Your task to perform on an android device: Clear the cart on amazon. Search for "rayovac triple a" on amazon, select the first entry, and add it to the cart. Image 0: 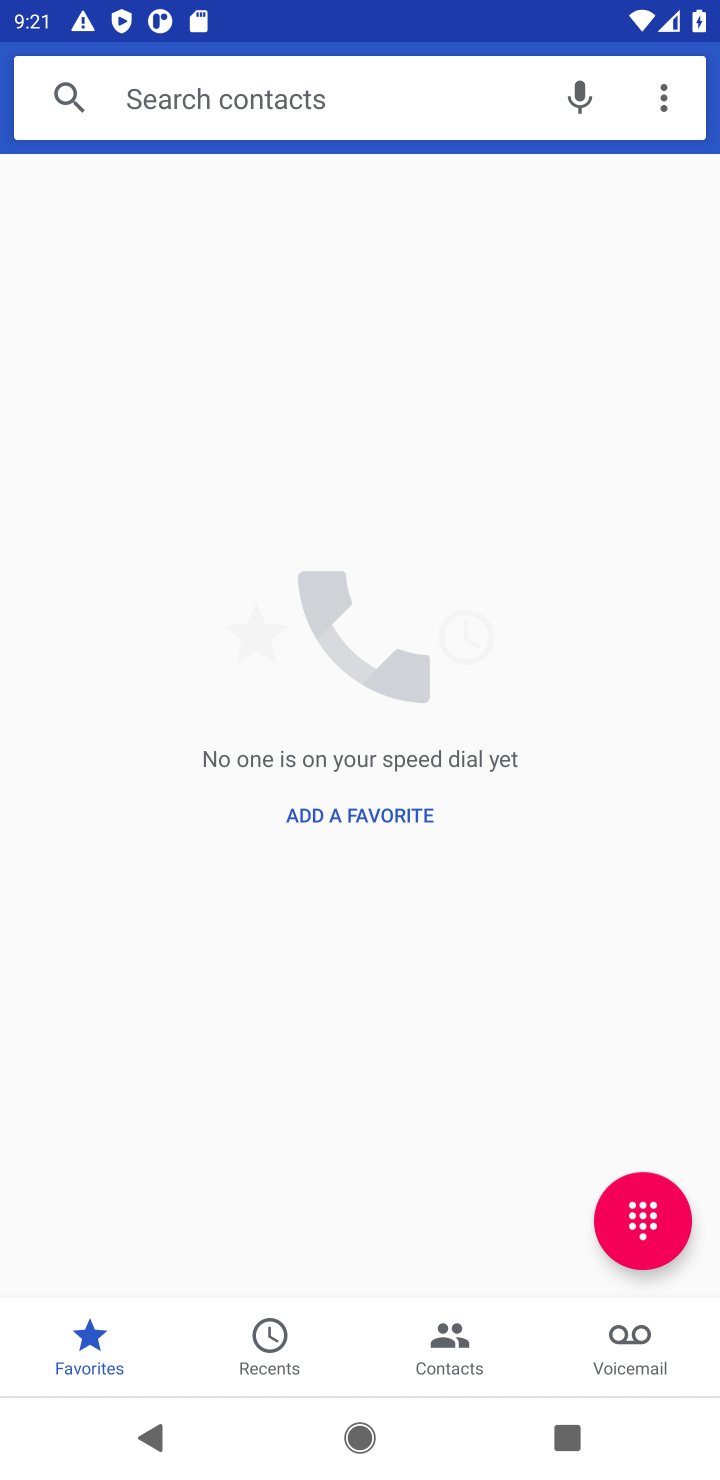
Step 0: press home button
Your task to perform on an android device: Clear the cart on amazon. Search for "rayovac triple a" on amazon, select the first entry, and add it to the cart. Image 1: 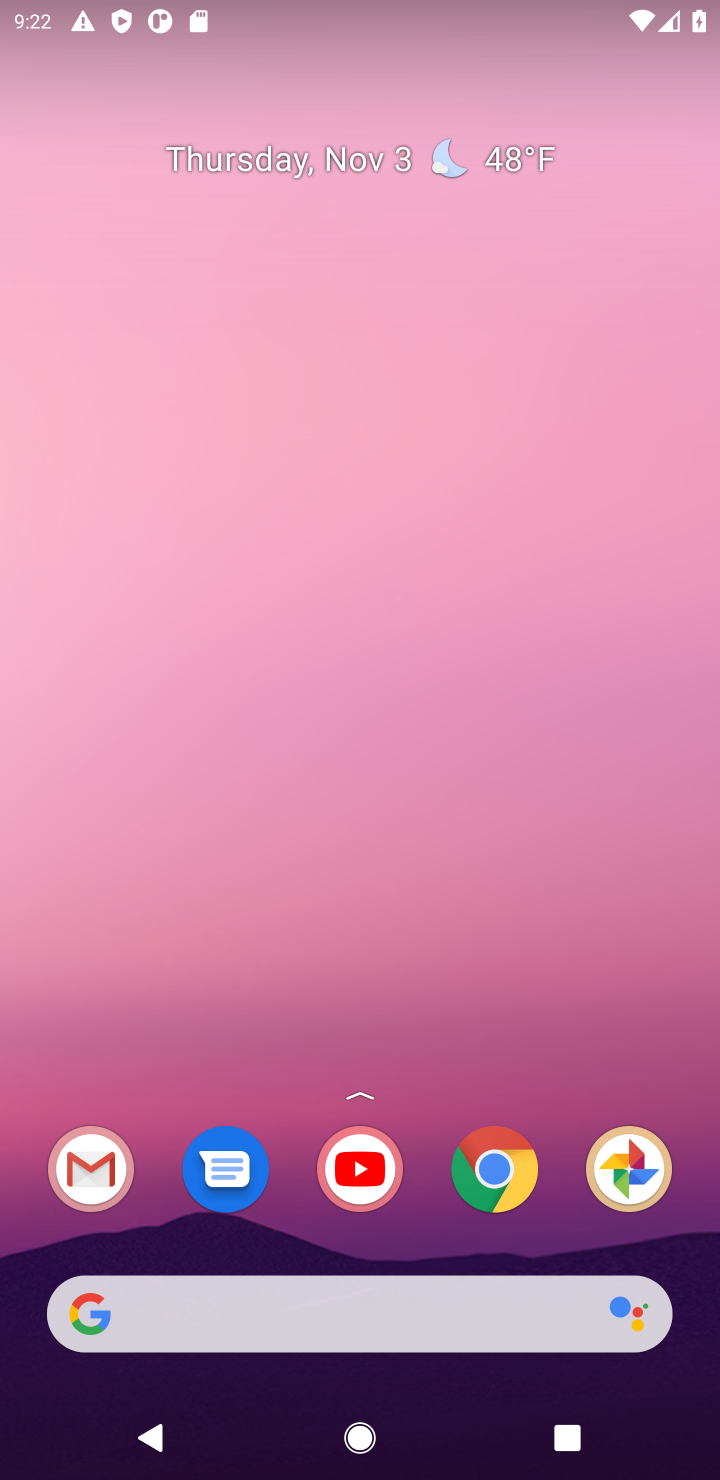
Step 1: drag from (441, 1075) to (470, 297)
Your task to perform on an android device: Clear the cart on amazon. Search for "rayovac triple a" on amazon, select the first entry, and add it to the cart. Image 2: 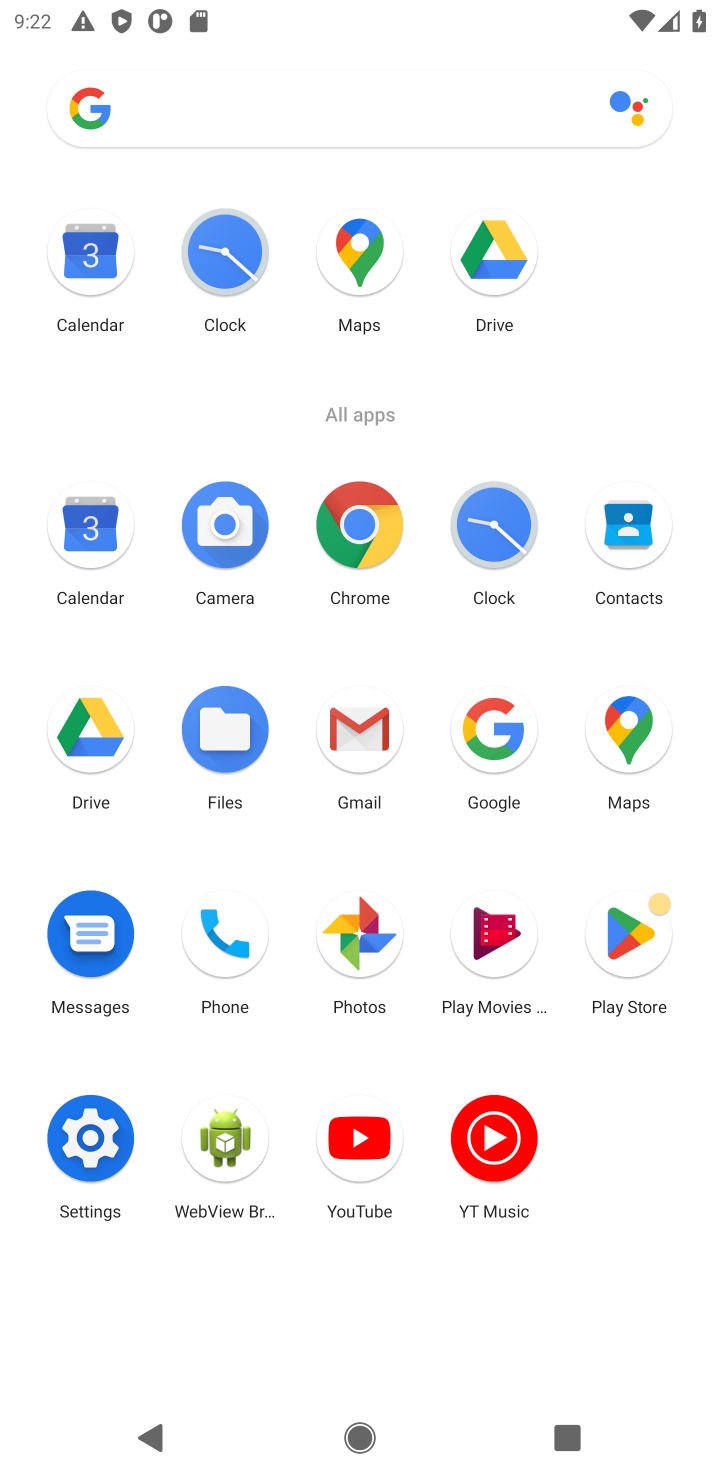
Step 2: click (354, 535)
Your task to perform on an android device: Clear the cart on amazon. Search for "rayovac triple a" on amazon, select the first entry, and add it to the cart. Image 3: 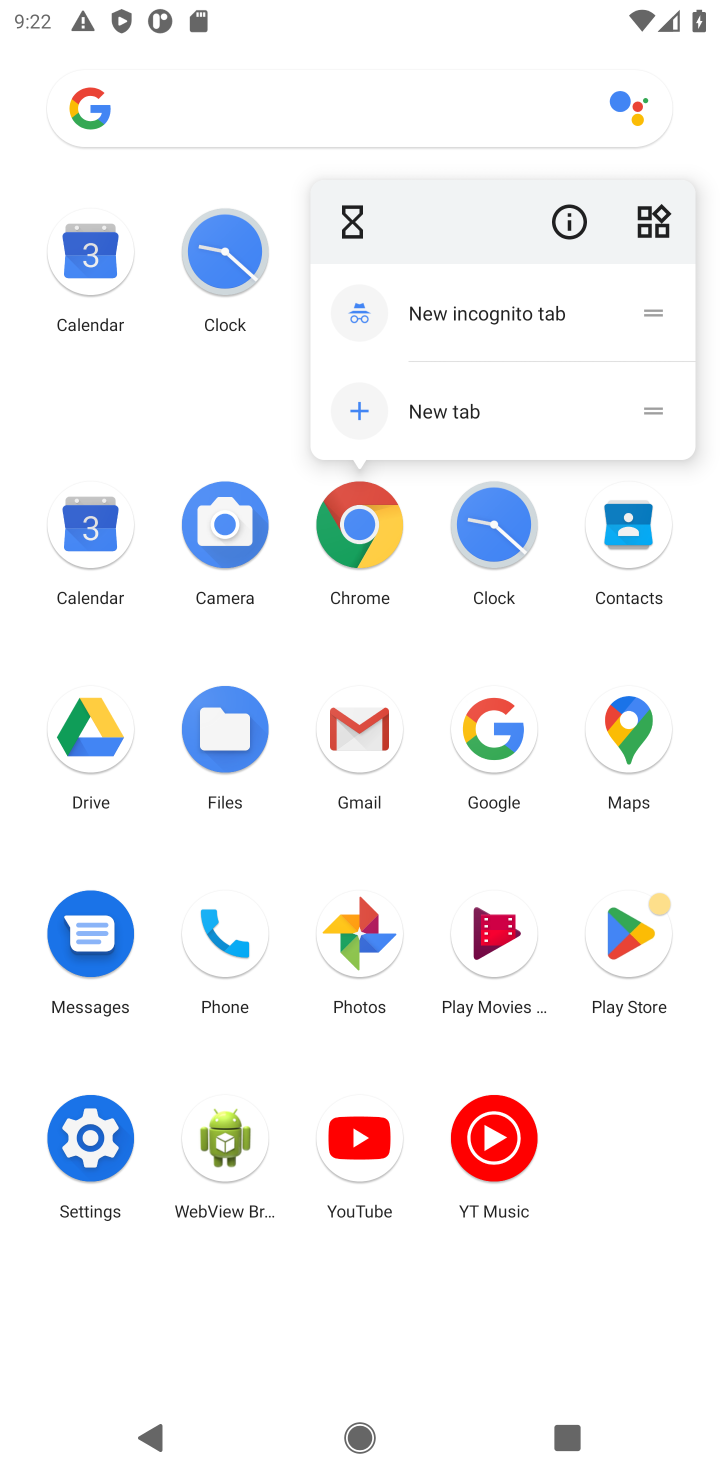
Step 3: click (364, 523)
Your task to perform on an android device: Clear the cart on amazon. Search for "rayovac triple a" on amazon, select the first entry, and add it to the cart. Image 4: 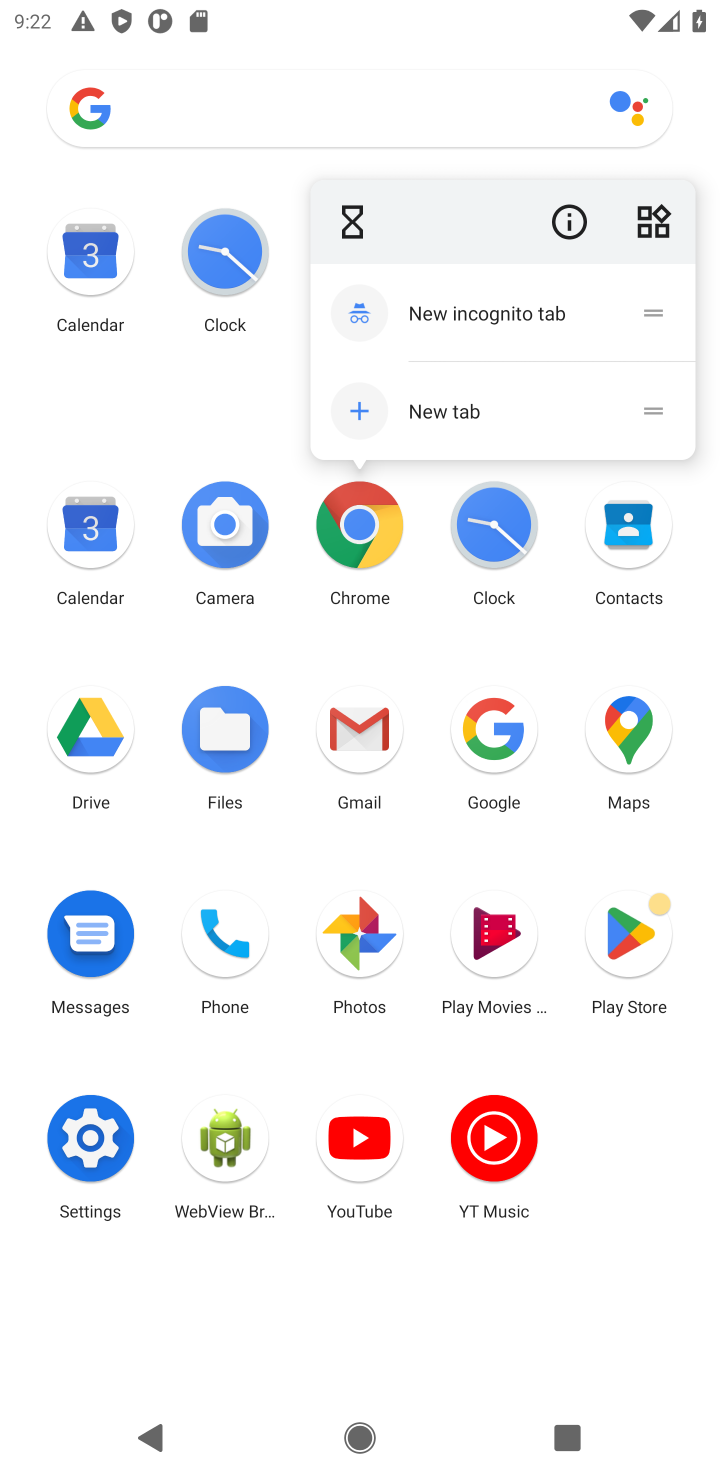
Step 4: click (356, 524)
Your task to perform on an android device: Clear the cart on amazon. Search for "rayovac triple a" on amazon, select the first entry, and add it to the cart. Image 5: 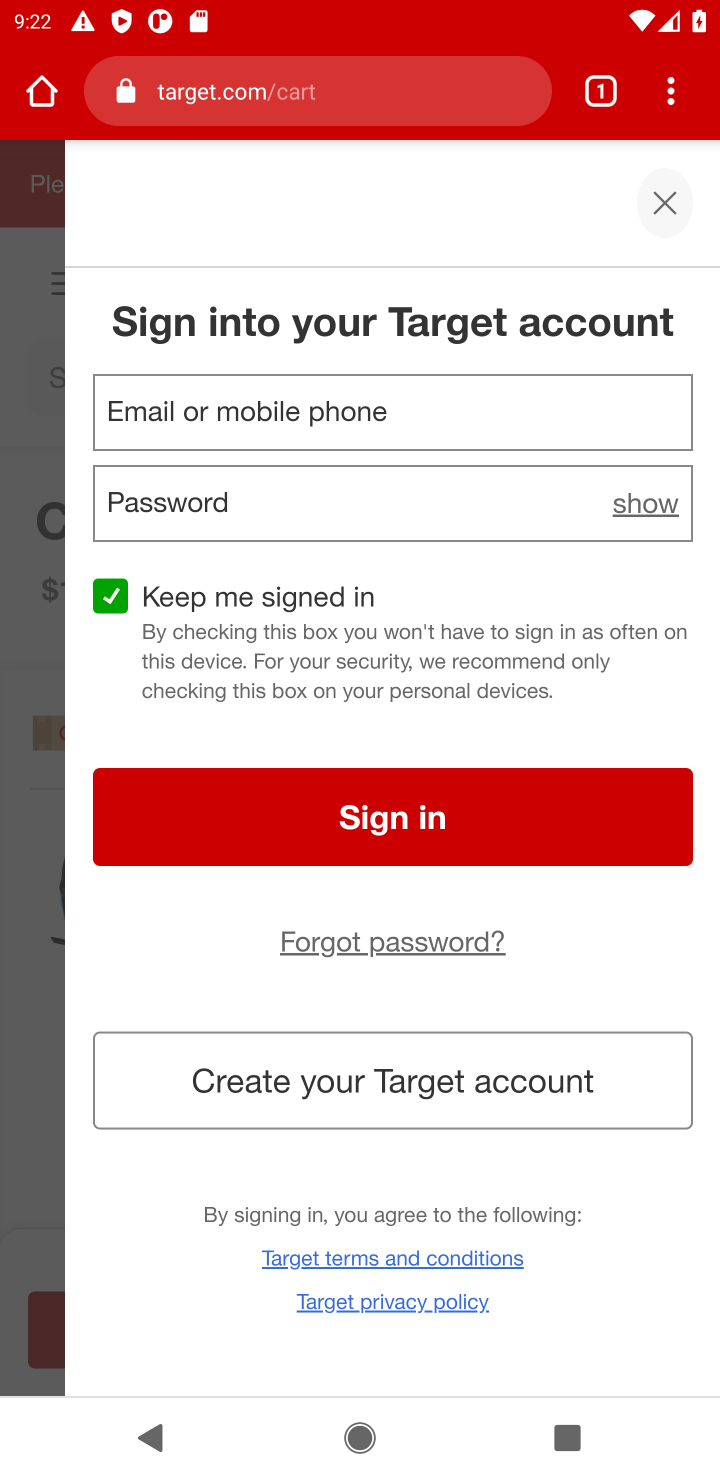
Step 5: click (465, 84)
Your task to perform on an android device: Clear the cart on amazon. Search for "rayovac triple a" on amazon, select the first entry, and add it to the cart. Image 6: 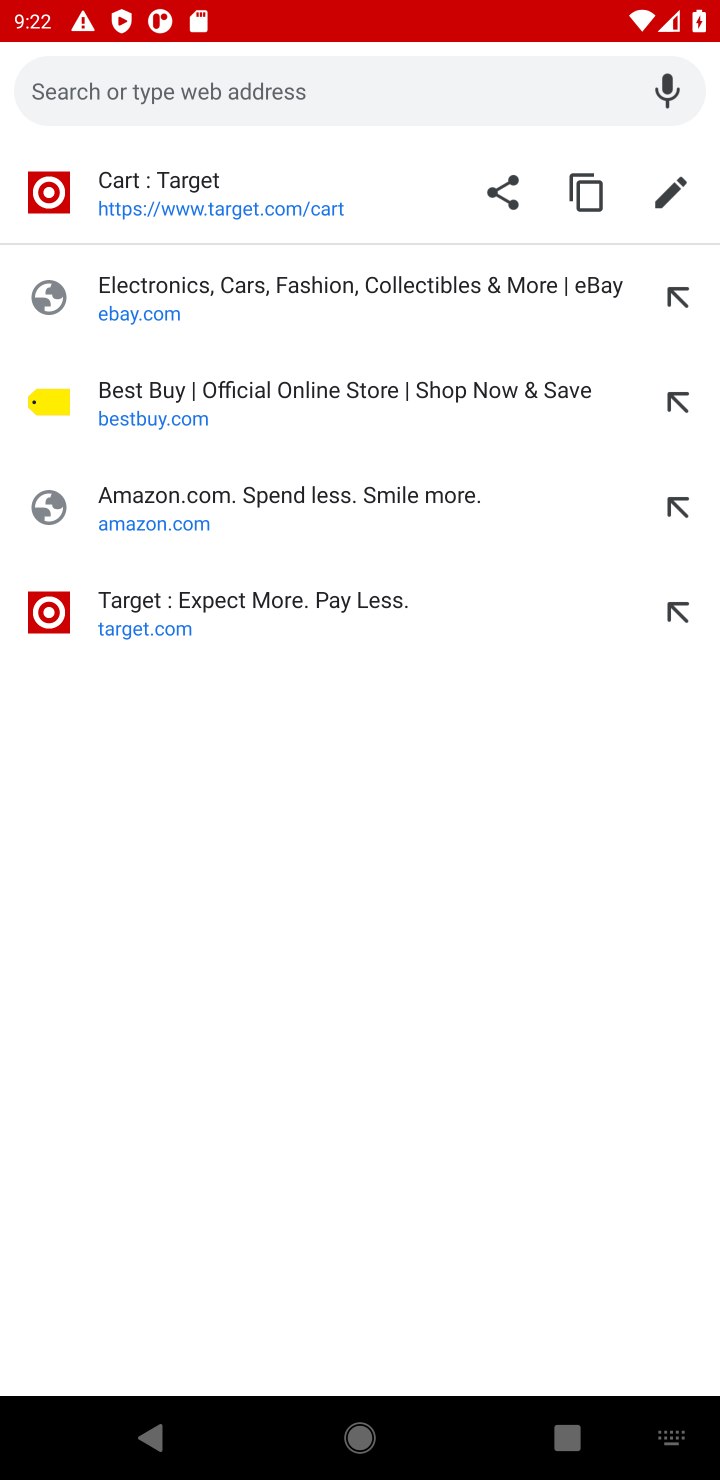
Step 6: type "amazon.com"
Your task to perform on an android device: Clear the cart on amazon. Search for "rayovac triple a" on amazon, select the first entry, and add it to the cart. Image 7: 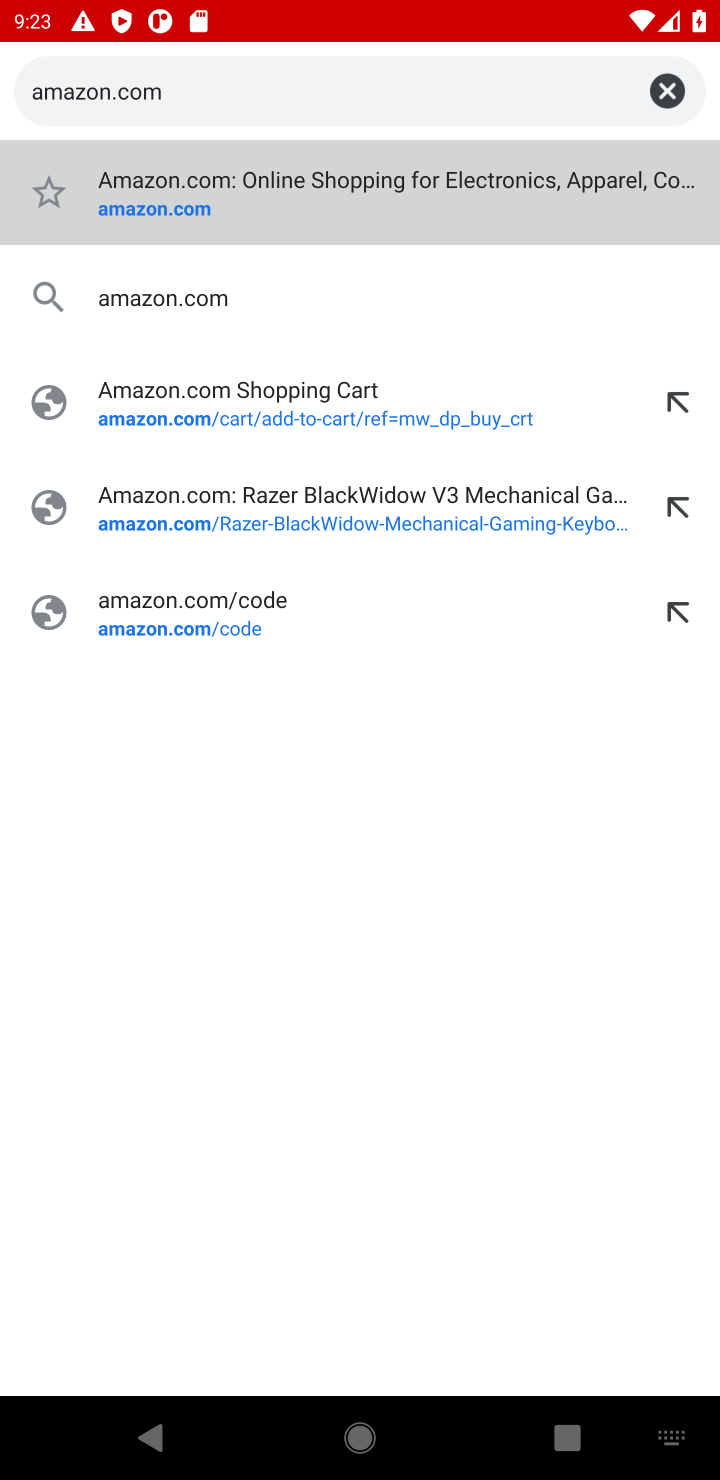
Step 7: press enter
Your task to perform on an android device: Clear the cart on amazon. Search for "rayovac triple a" on amazon, select the first entry, and add it to the cart. Image 8: 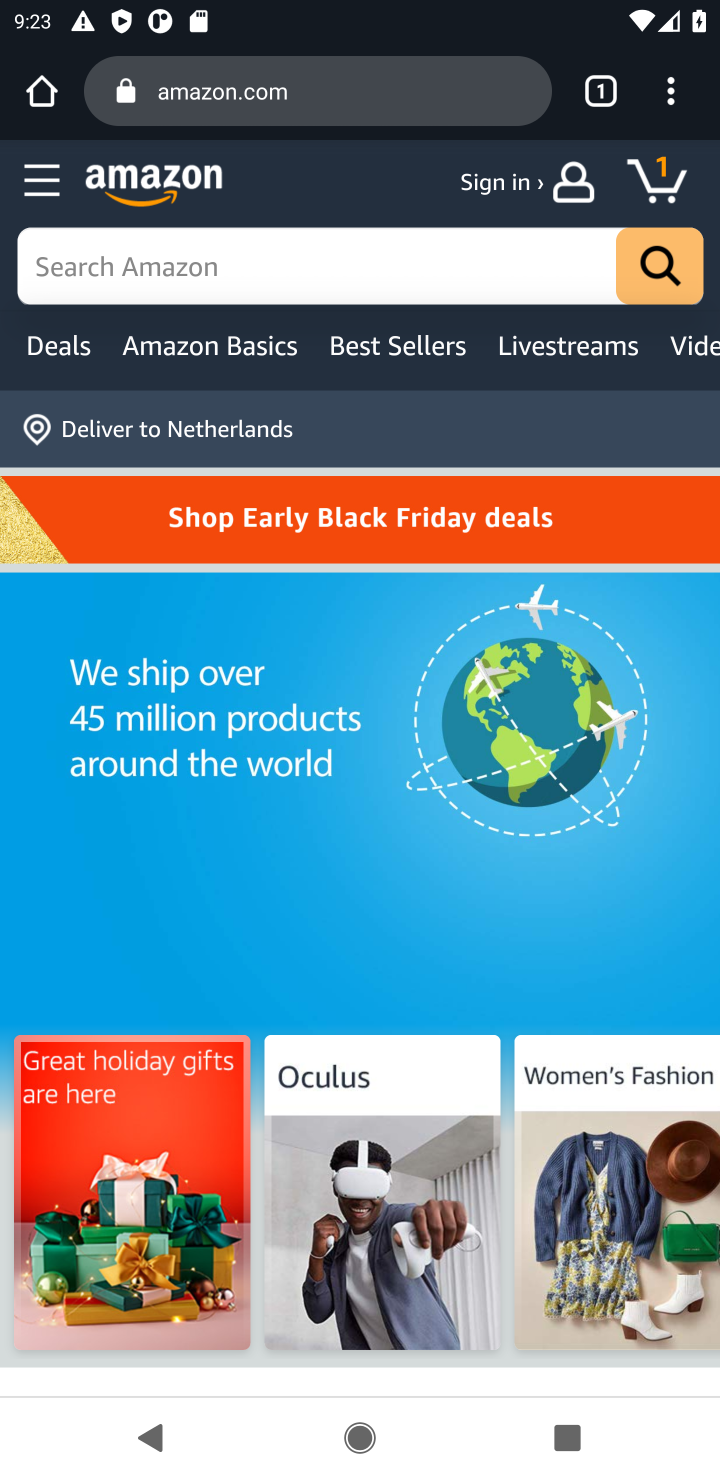
Step 8: click (693, 178)
Your task to perform on an android device: Clear the cart on amazon. Search for "rayovac triple a" on amazon, select the first entry, and add it to the cart. Image 9: 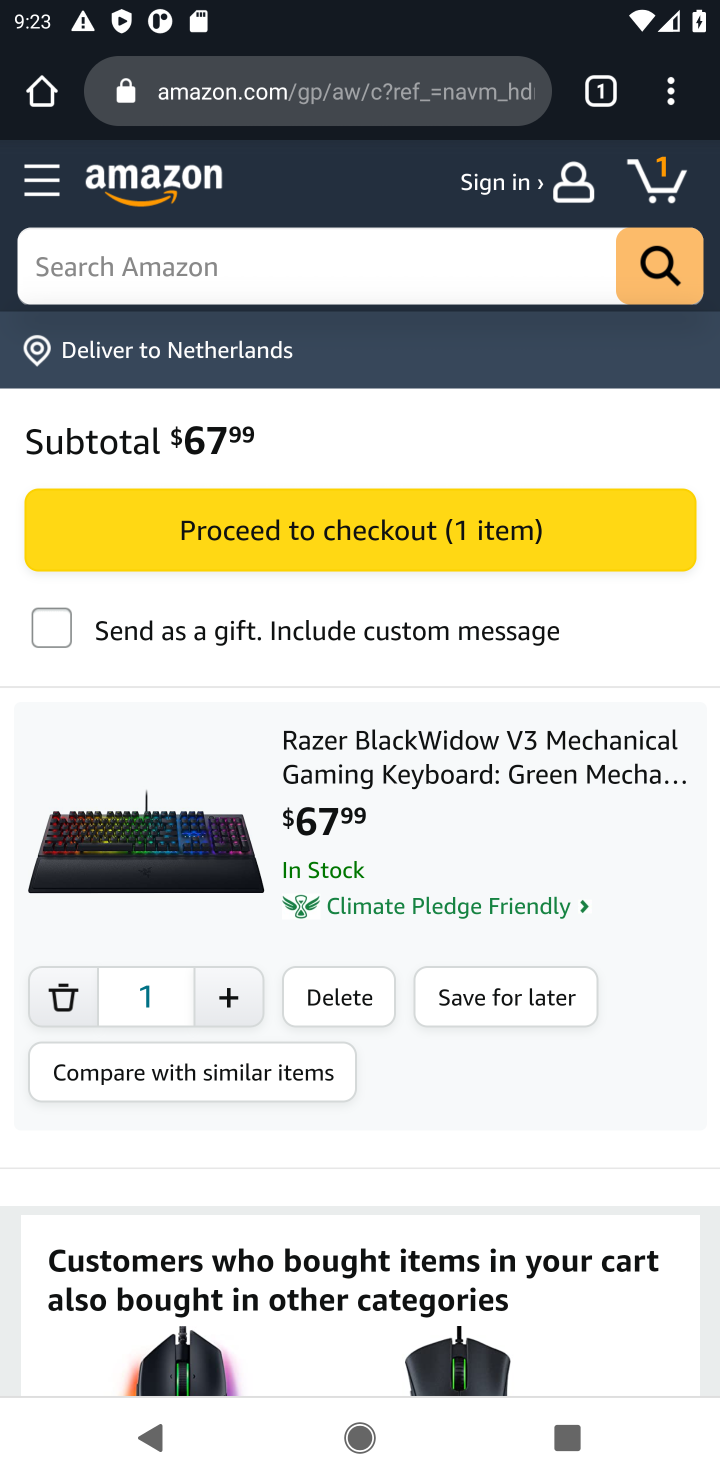
Step 9: click (72, 1002)
Your task to perform on an android device: Clear the cart on amazon. Search for "rayovac triple a" on amazon, select the first entry, and add it to the cart. Image 10: 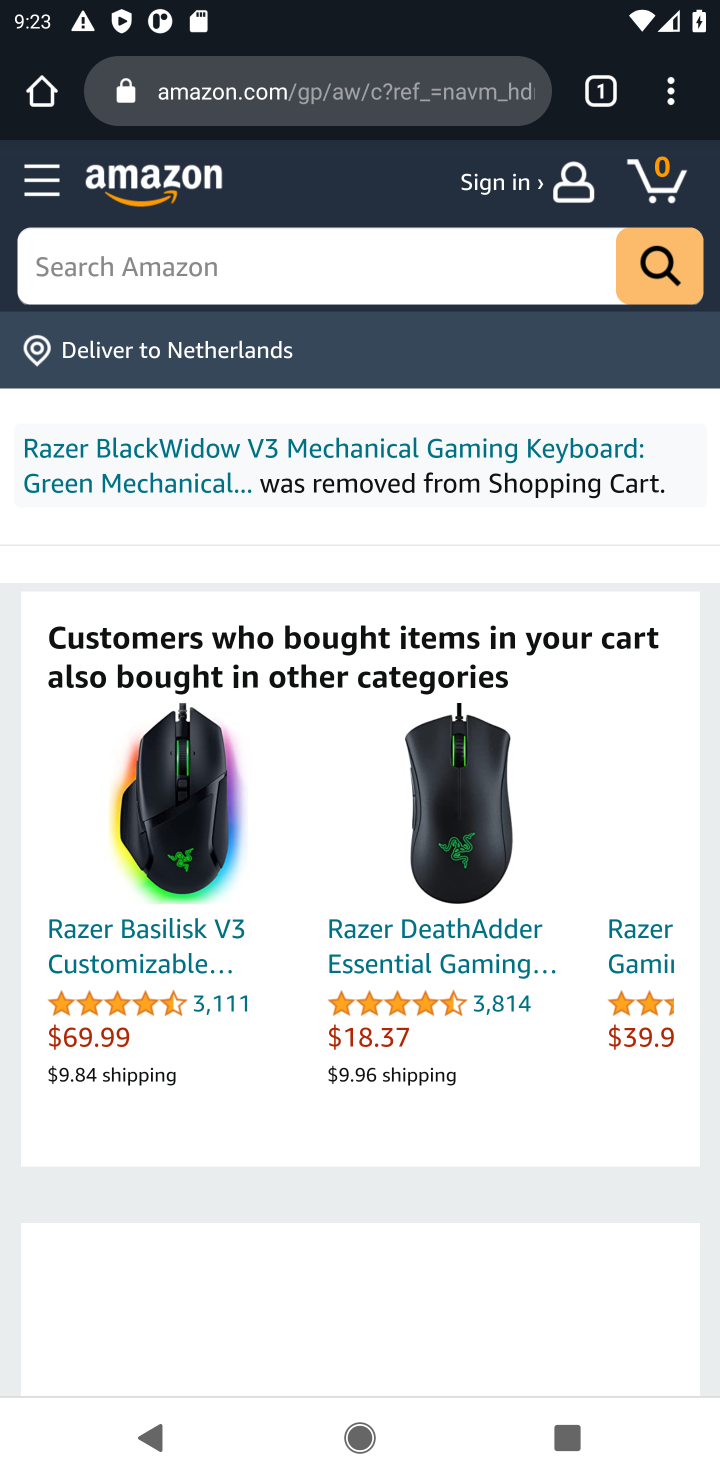
Step 10: click (402, 292)
Your task to perform on an android device: Clear the cart on amazon. Search for "rayovac triple a" on amazon, select the first entry, and add it to the cart. Image 11: 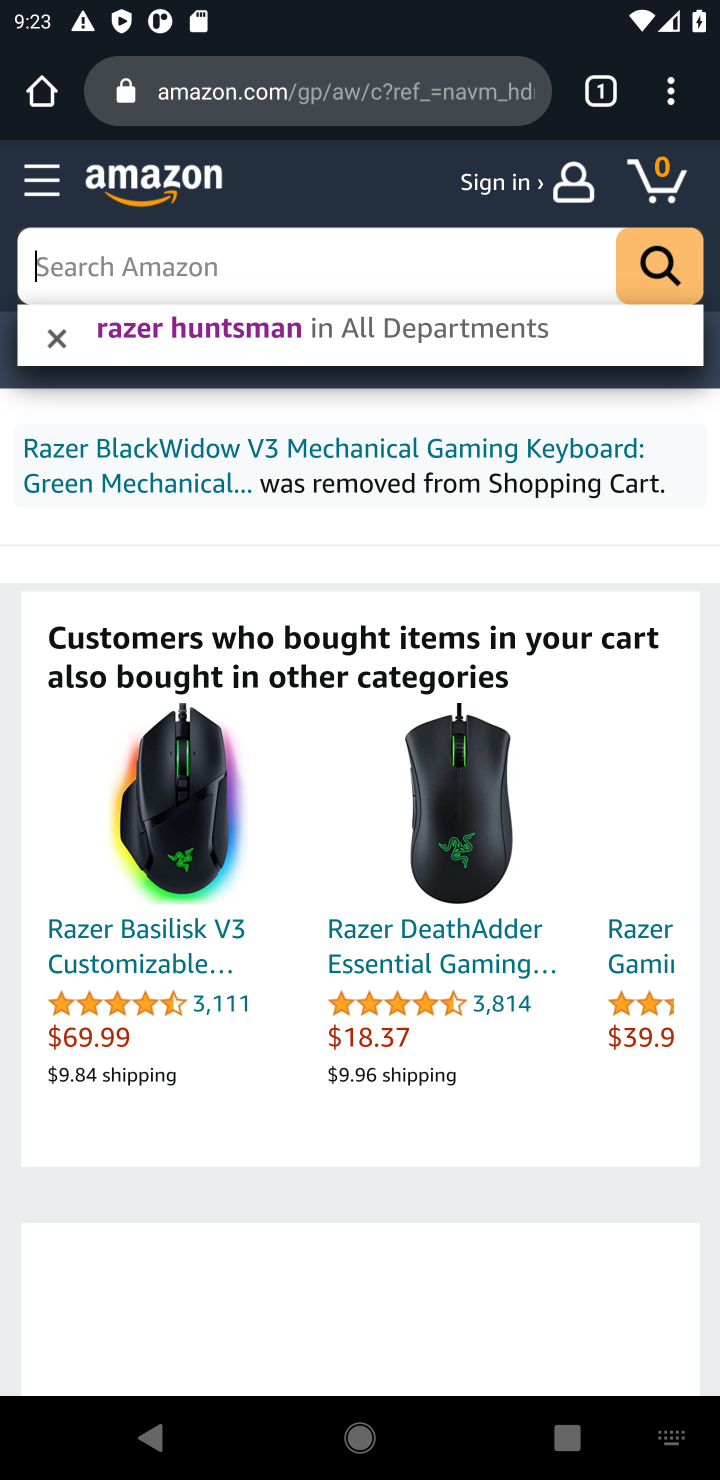
Step 11: type "rayovac triple a"
Your task to perform on an android device: Clear the cart on amazon. Search for "rayovac triple a" on amazon, select the first entry, and add it to the cart. Image 12: 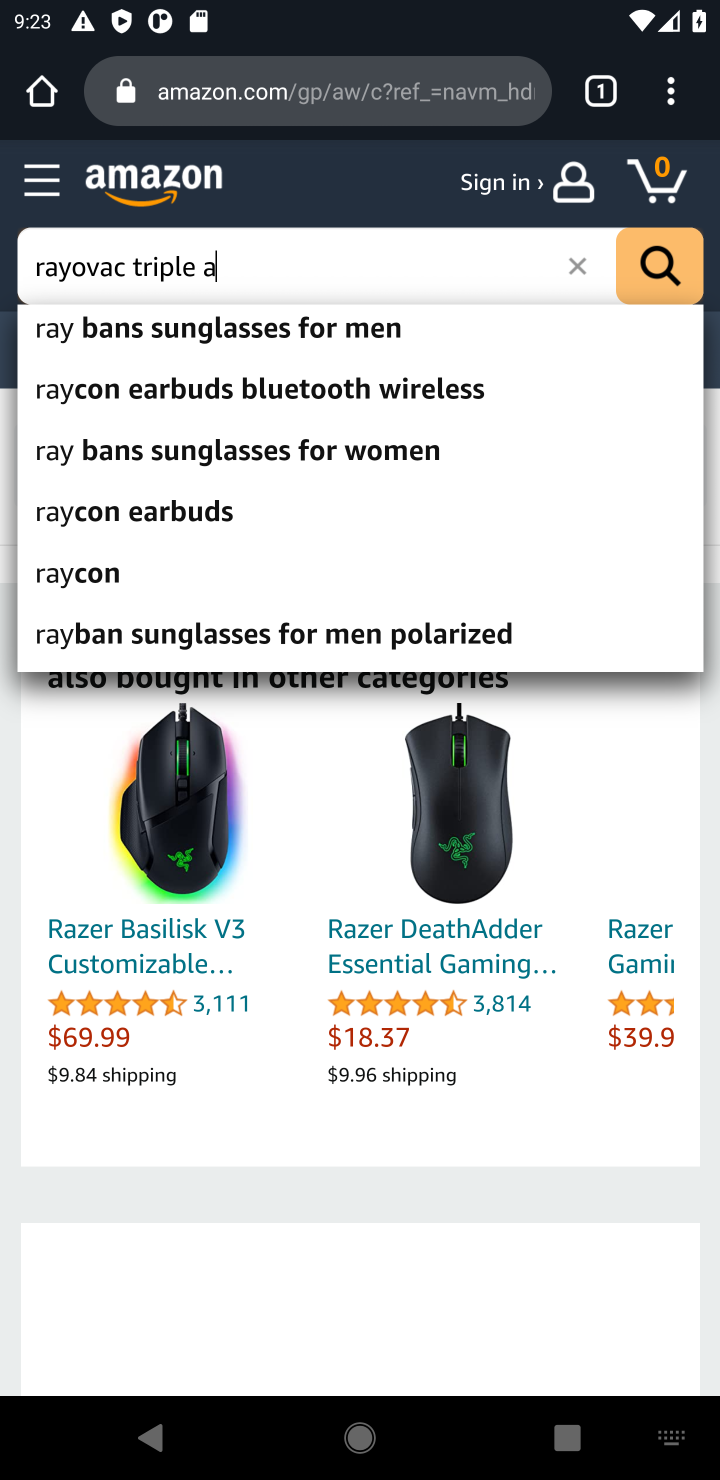
Step 12: press enter
Your task to perform on an android device: Clear the cart on amazon. Search for "rayovac triple a" on amazon, select the first entry, and add it to the cart. Image 13: 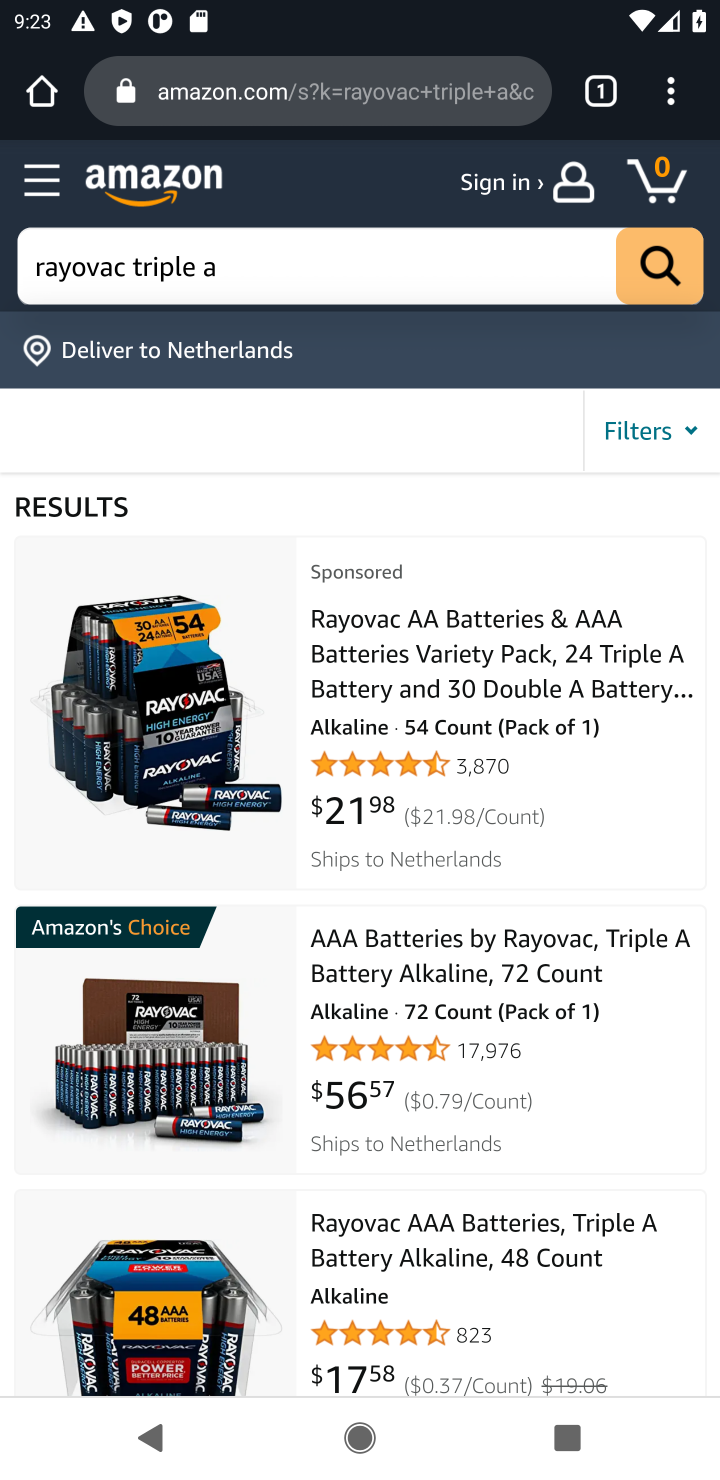
Step 13: click (348, 980)
Your task to perform on an android device: Clear the cart on amazon. Search for "rayovac triple a" on amazon, select the first entry, and add it to the cart. Image 14: 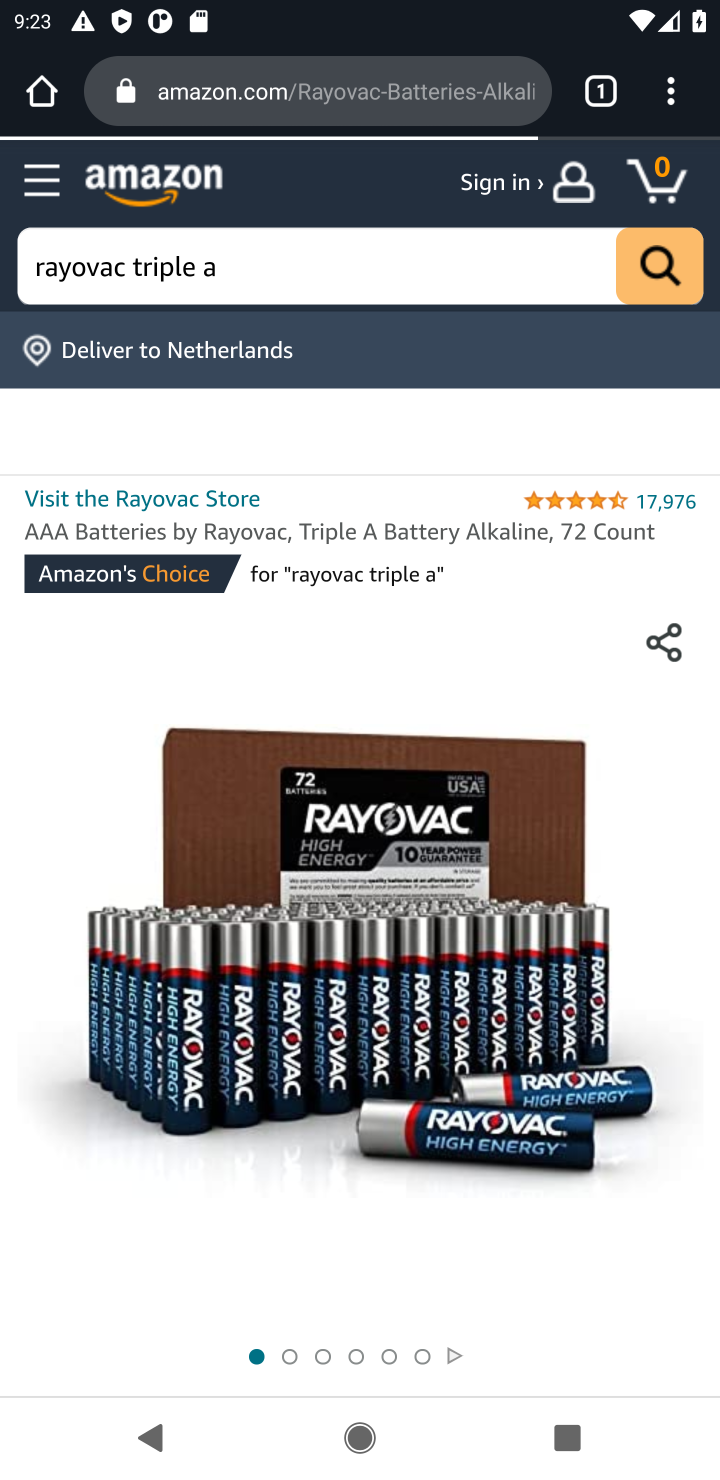
Step 14: drag from (457, 1268) to (451, 699)
Your task to perform on an android device: Clear the cart on amazon. Search for "rayovac triple a" on amazon, select the first entry, and add it to the cart. Image 15: 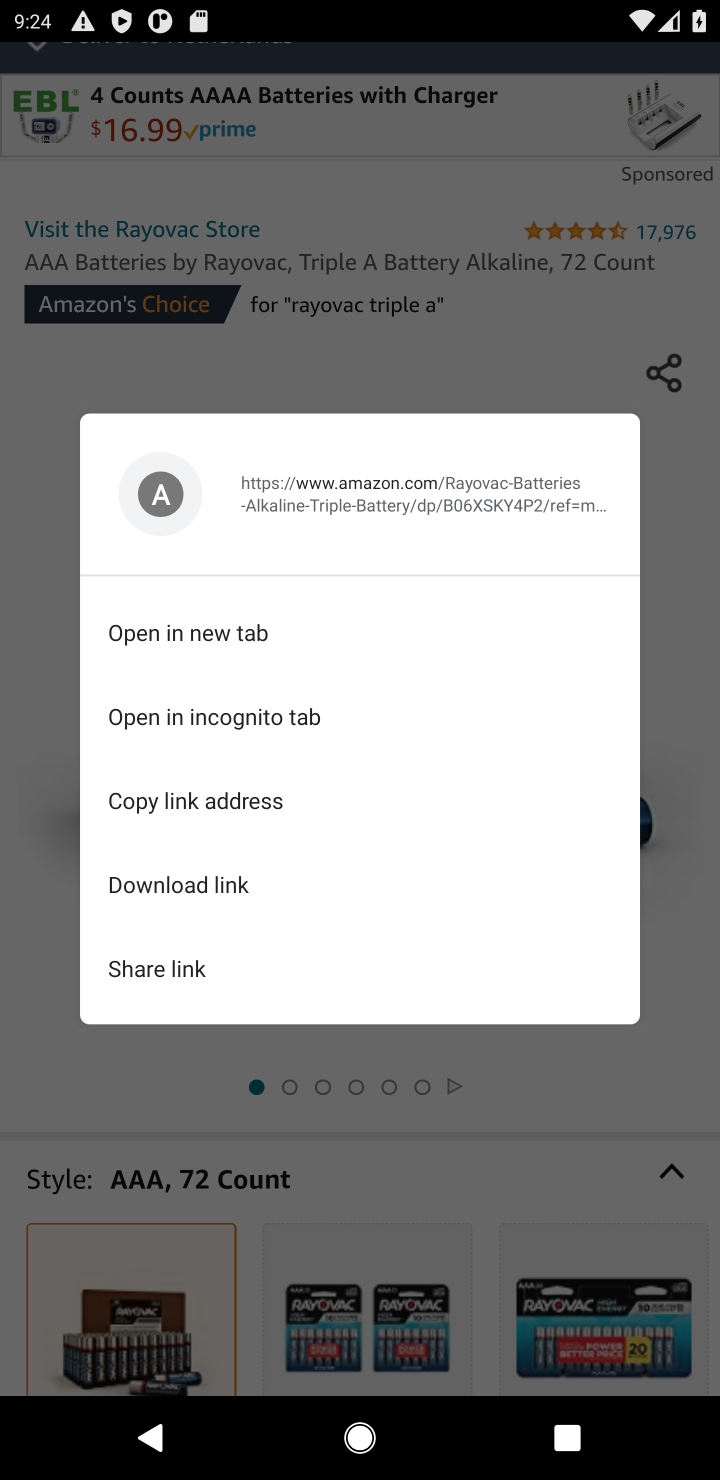
Step 15: click (494, 1133)
Your task to perform on an android device: Clear the cart on amazon. Search for "rayovac triple a" on amazon, select the first entry, and add it to the cart. Image 16: 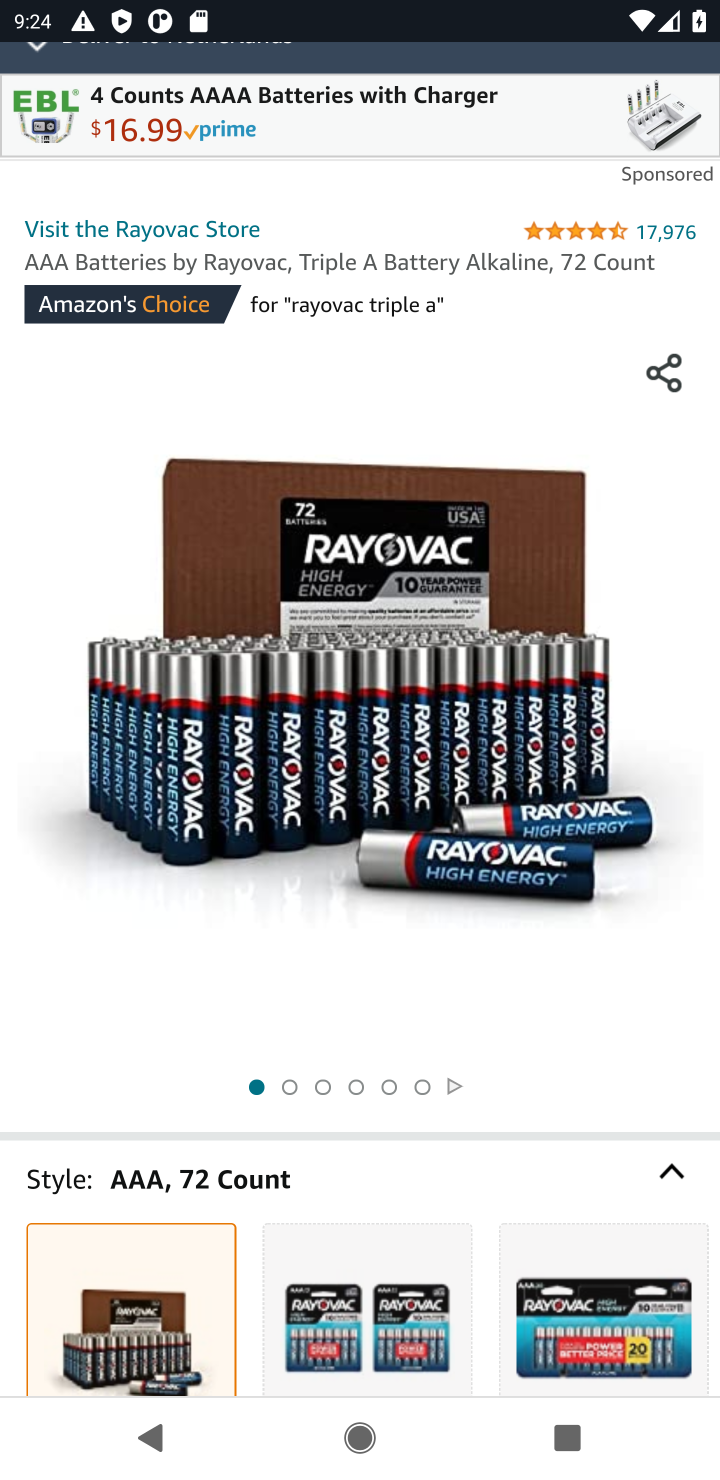
Step 16: drag from (474, 1115) to (456, 655)
Your task to perform on an android device: Clear the cart on amazon. Search for "rayovac triple a" on amazon, select the first entry, and add it to the cart. Image 17: 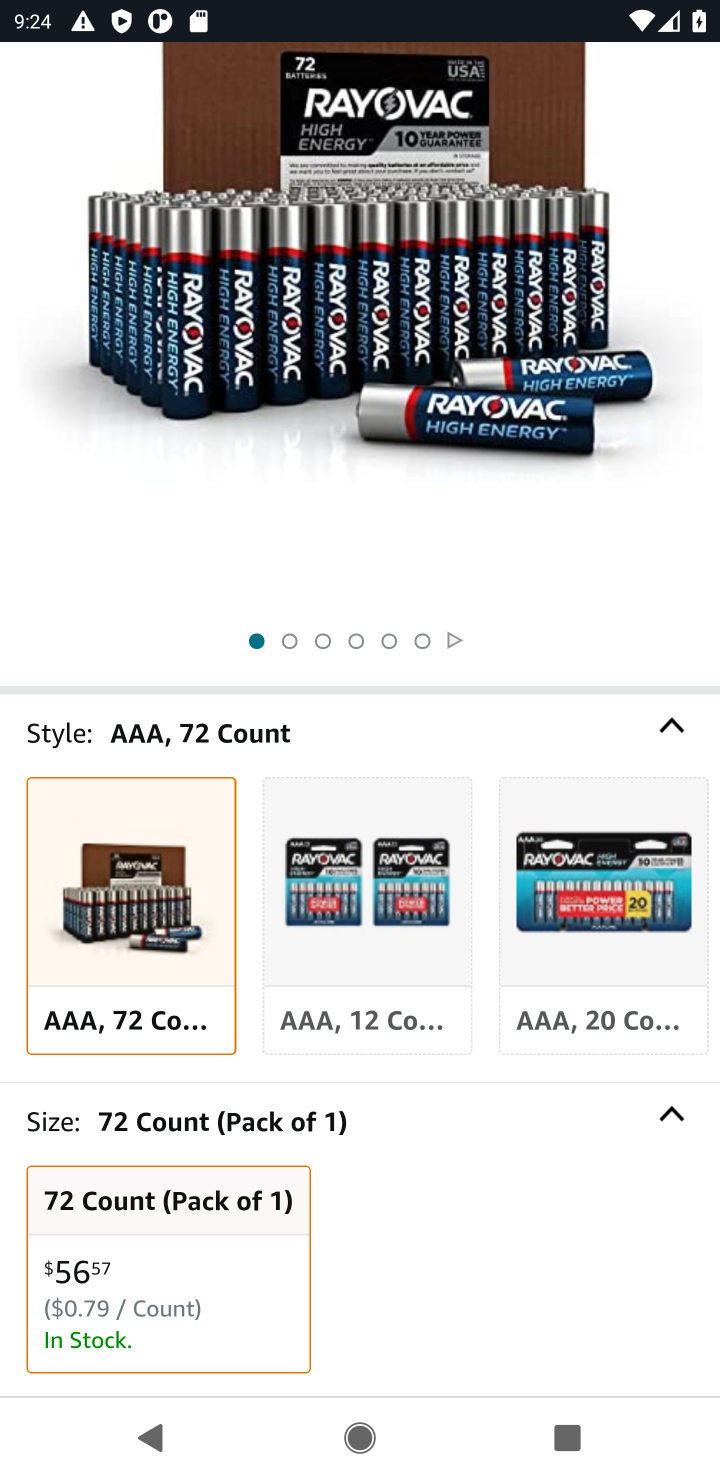
Step 17: drag from (449, 1076) to (399, 514)
Your task to perform on an android device: Clear the cart on amazon. Search for "rayovac triple a" on amazon, select the first entry, and add it to the cart. Image 18: 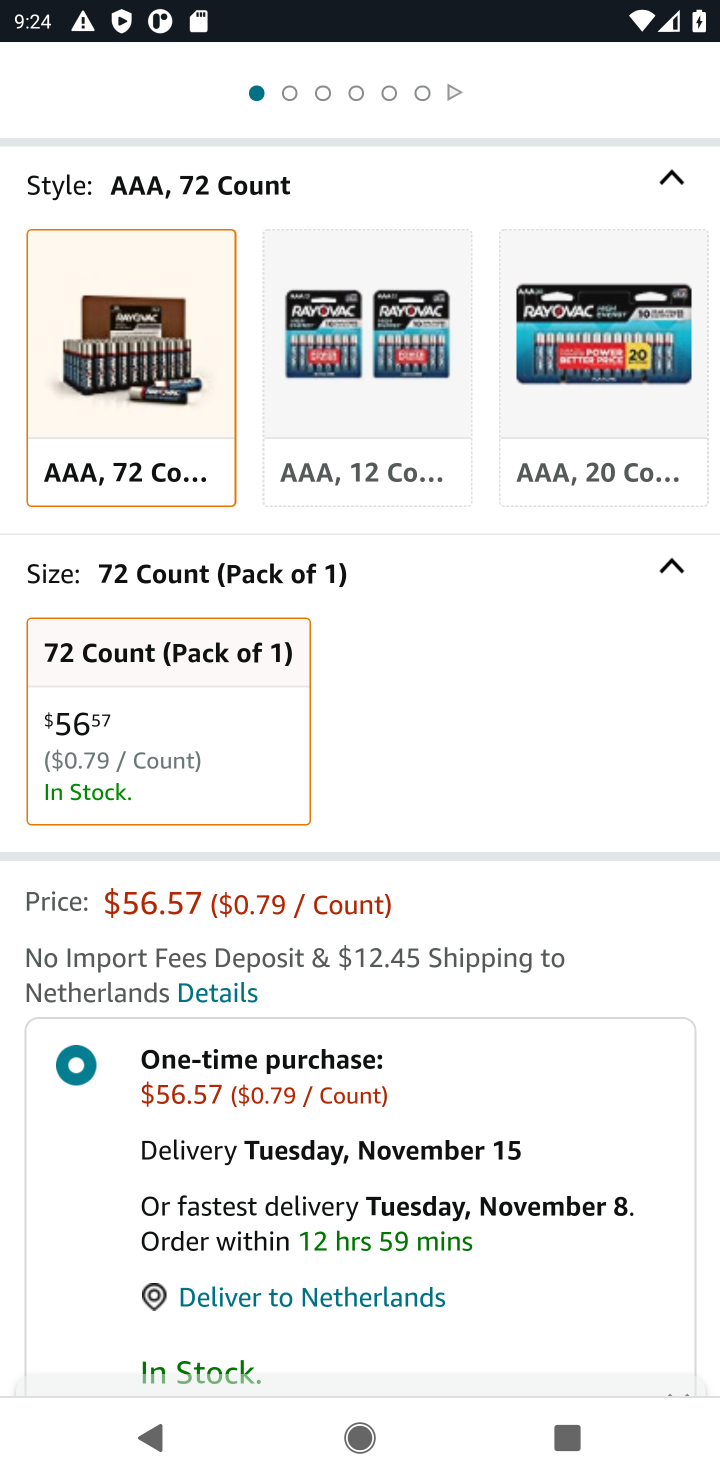
Step 18: drag from (476, 1051) to (441, 454)
Your task to perform on an android device: Clear the cart on amazon. Search for "rayovac triple a" on amazon, select the first entry, and add it to the cart. Image 19: 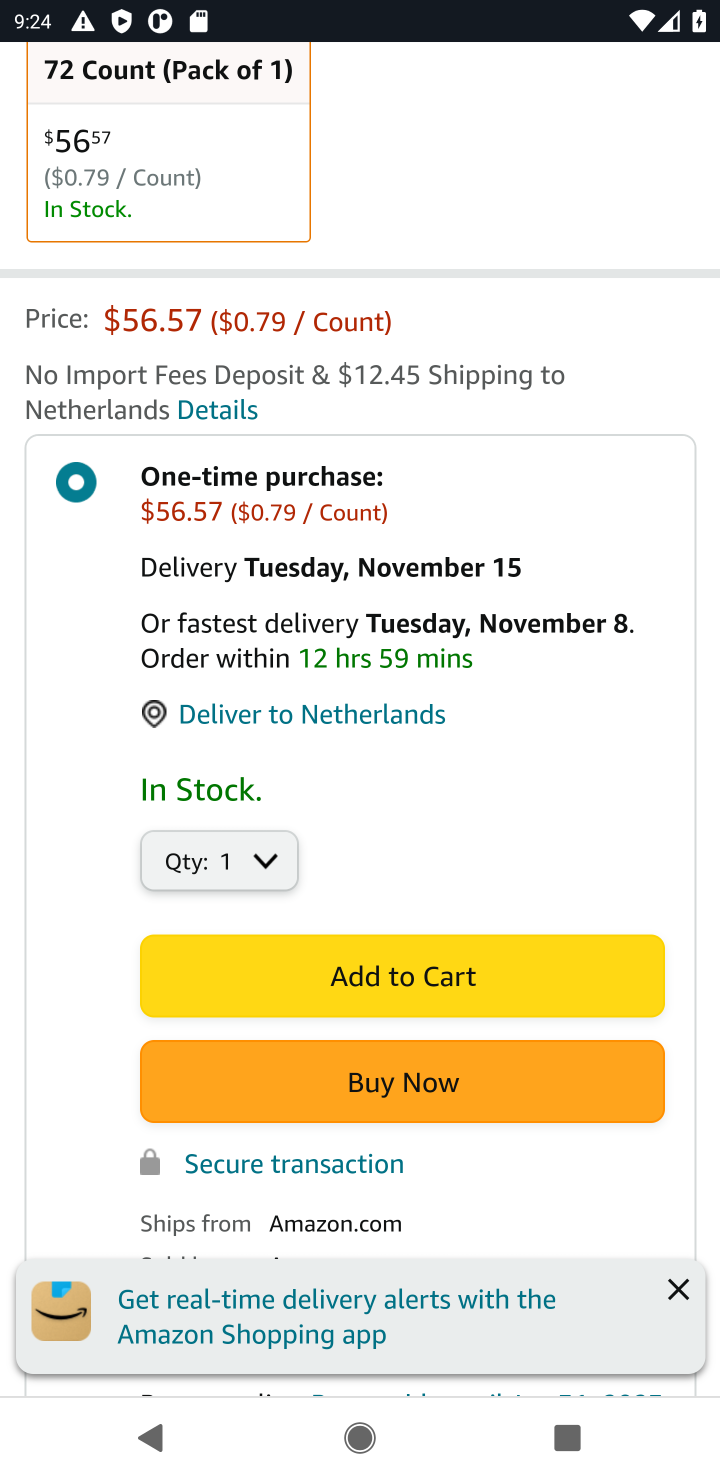
Step 19: click (504, 955)
Your task to perform on an android device: Clear the cart on amazon. Search for "rayovac triple a" on amazon, select the first entry, and add it to the cart. Image 20: 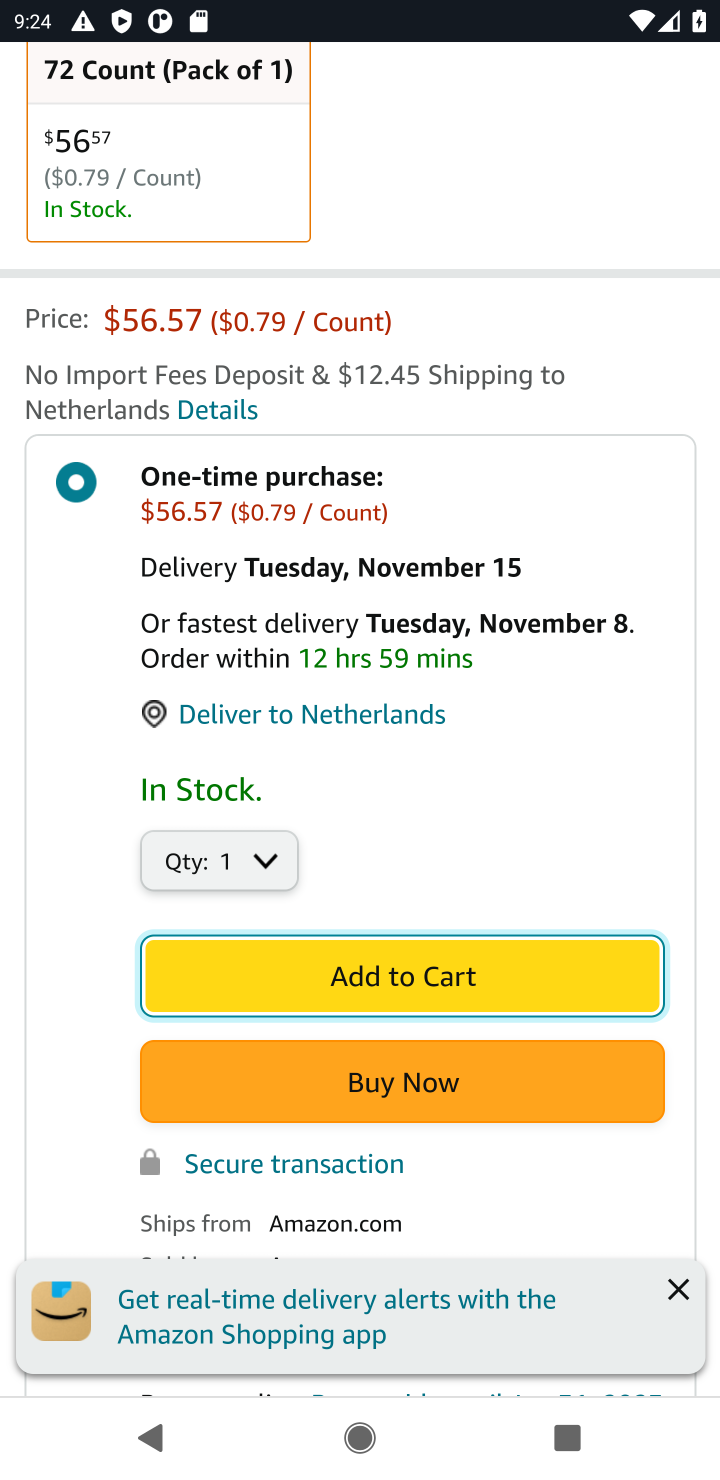
Step 20: click (396, 973)
Your task to perform on an android device: Clear the cart on amazon. Search for "rayovac triple a" on amazon, select the first entry, and add it to the cart. Image 21: 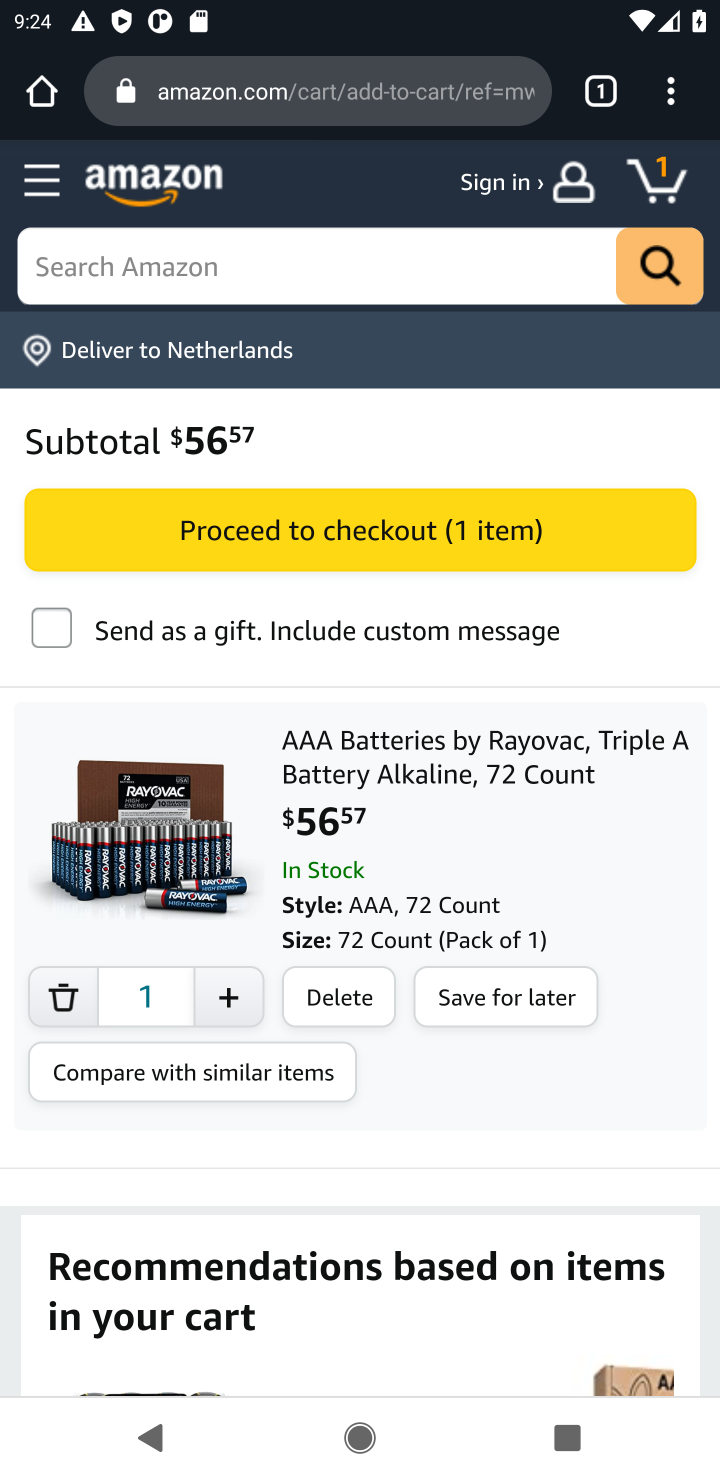
Step 21: task complete